Your task to perform on an android device: What's on my calendar tomorrow? Image 0: 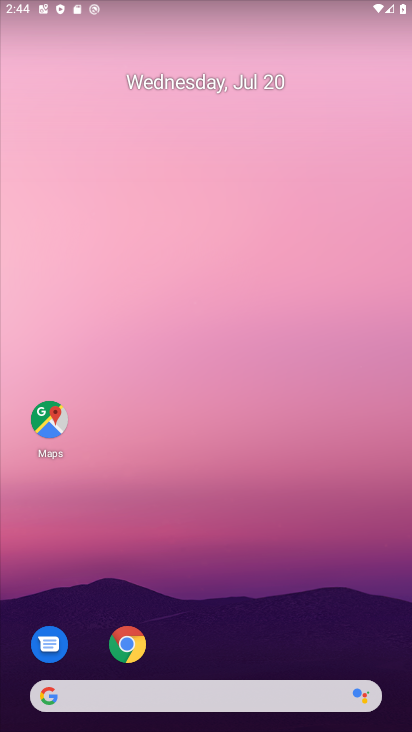
Step 0: drag from (228, 648) to (238, 196)
Your task to perform on an android device: What's on my calendar tomorrow? Image 1: 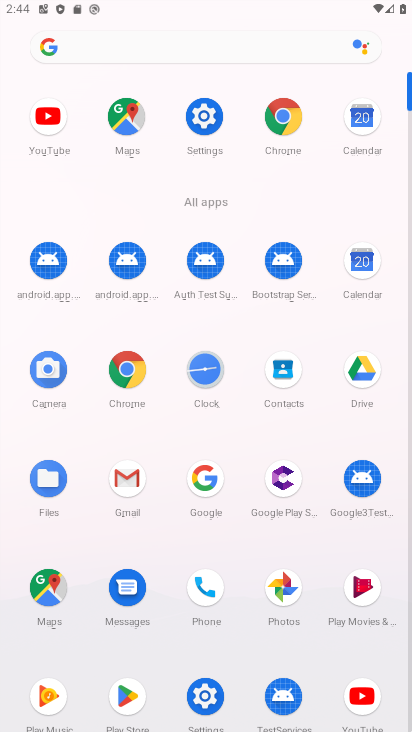
Step 1: click (375, 145)
Your task to perform on an android device: What's on my calendar tomorrow? Image 2: 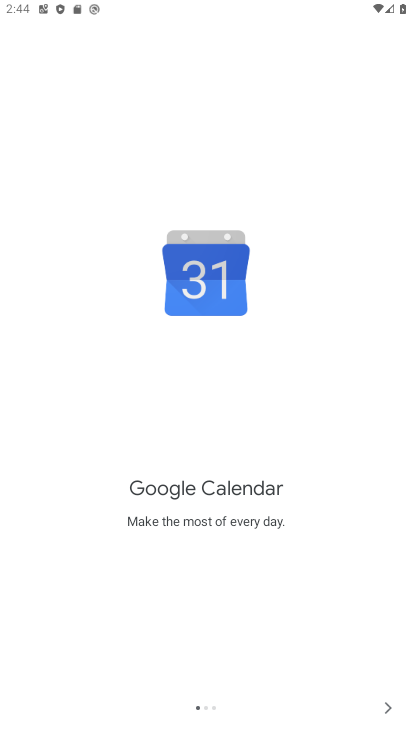
Step 2: click (376, 721)
Your task to perform on an android device: What's on my calendar tomorrow? Image 3: 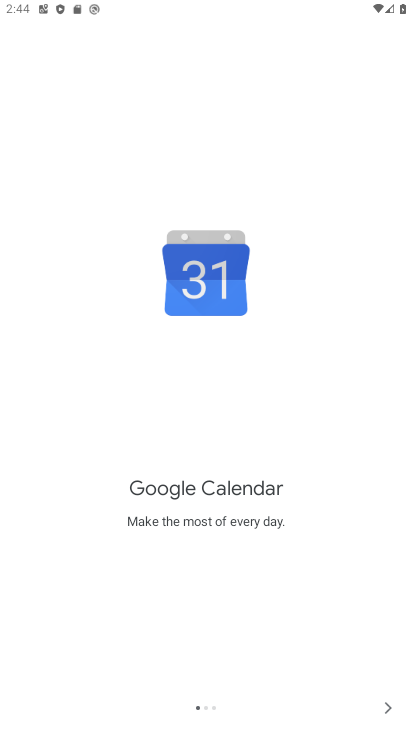
Step 3: click (376, 721)
Your task to perform on an android device: What's on my calendar tomorrow? Image 4: 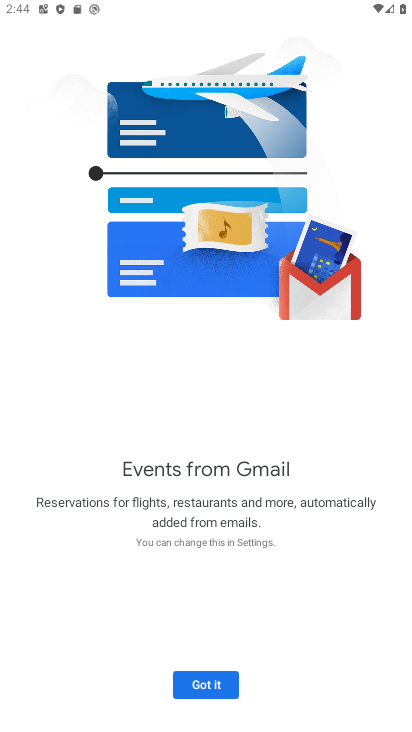
Step 4: click (217, 692)
Your task to perform on an android device: What's on my calendar tomorrow? Image 5: 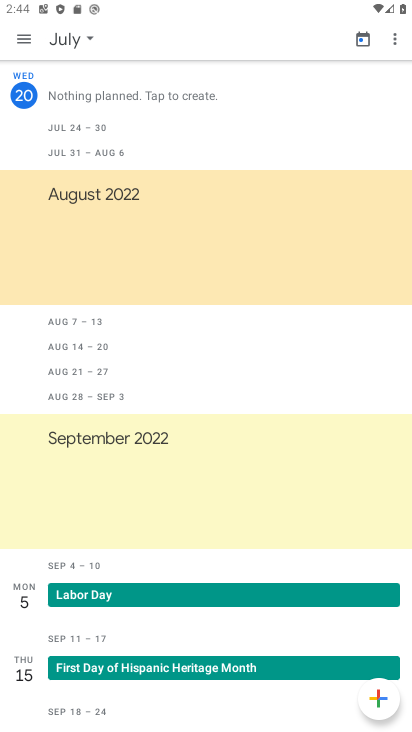
Step 5: task complete